Your task to perform on an android device: change text size in settings app Image 0: 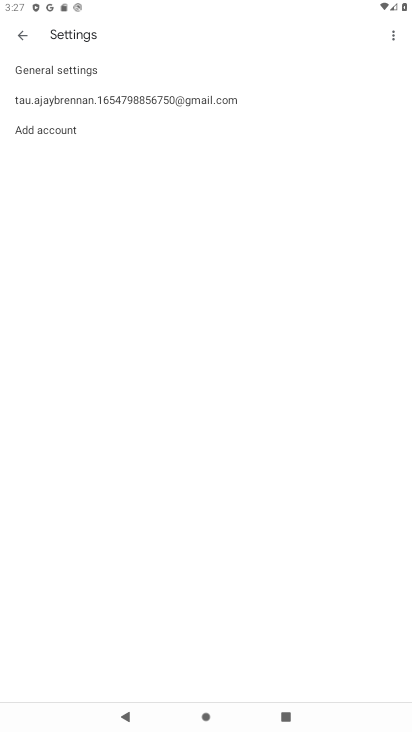
Step 0: press home button
Your task to perform on an android device: change text size in settings app Image 1: 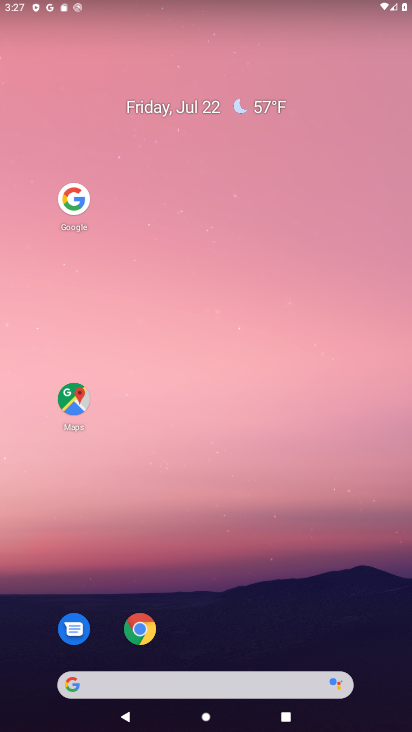
Step 1: drag from (191, 583) to (273, 62)
Your task to perform on an android device: change text size in settings app Image 2: 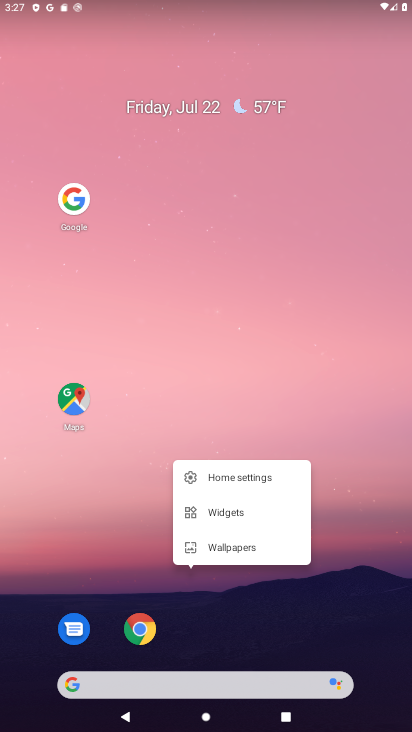
Step 2: drag from (97, 590) to (207, 183)
Your task to perform on an android device: change text size in settings app Image 3: 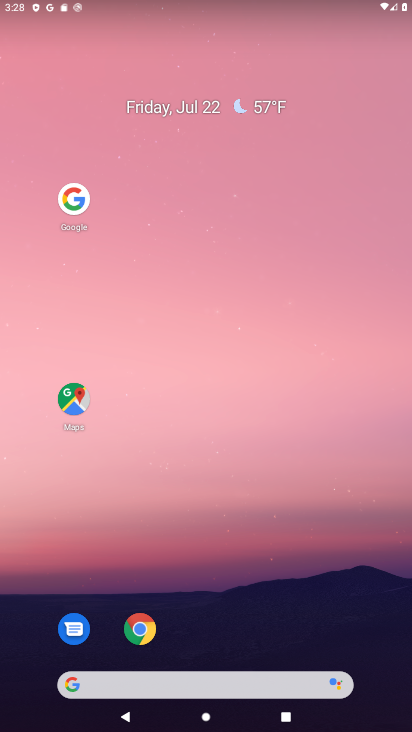
Step 3: drag from (209, 563) to (201, 2)
Your task to perform on an android device: change text size in settings app Image 4: 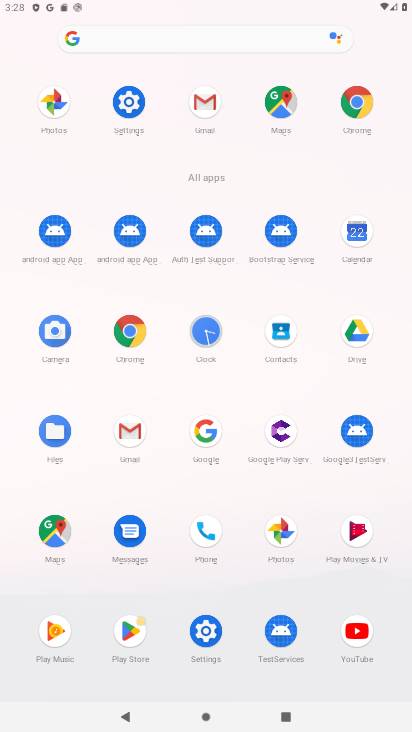
Step 4: click (124, 100)
Your task to perform on an android device: change text size in settings app Image 5: 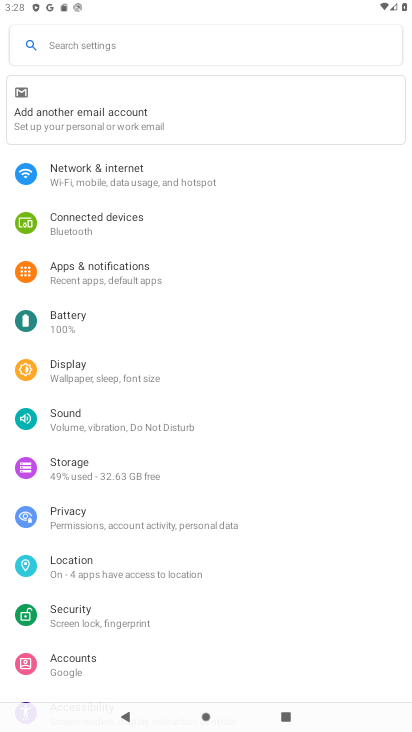
Step 5: click (204, 376)
Your task to perform on an android device: change text size in settings app Image 6: 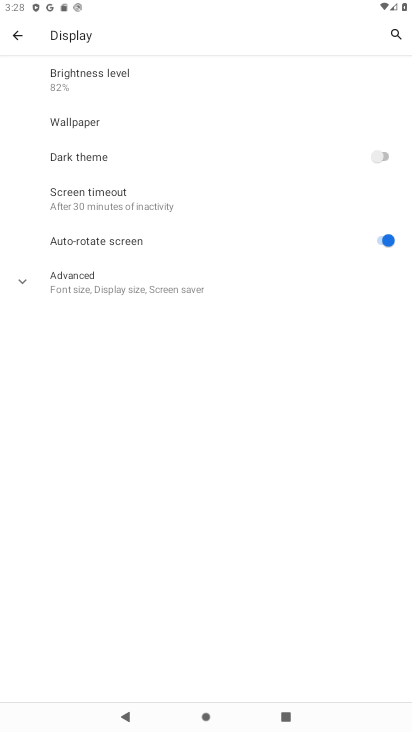
Step 6: click (200, 297)
Your task to perform on an android device: change text size in settings app Image 7: 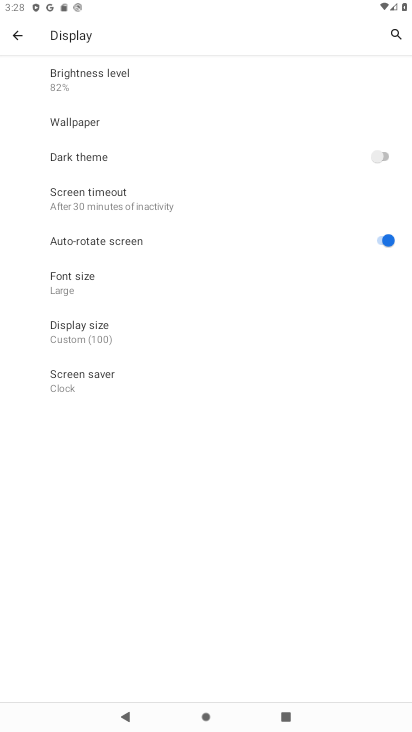
Step 7: click (156, 279)
Your task to perform on an android device: change text size in settings app Image 8: 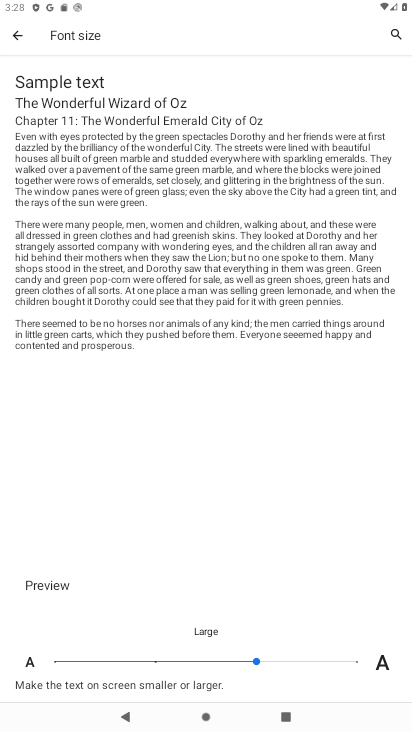
Step 8: click (360, 670)
Your task to perform on an android device: change text size in settings app Image 9: 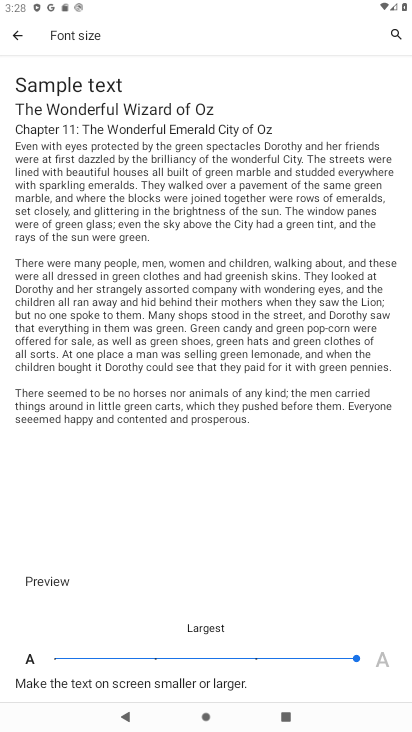
Step 9: task complete